Your task to perform on an android device: clear history in the chrome app Image 0: 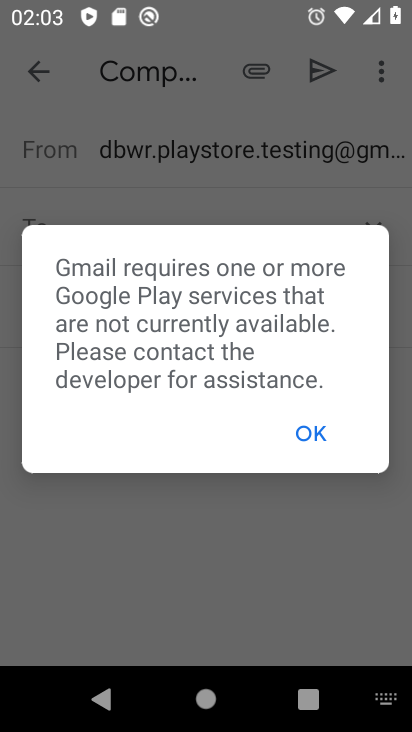
Step 0: press home button
Your task to perform on an android device: clear history in the chrome app Image 1: 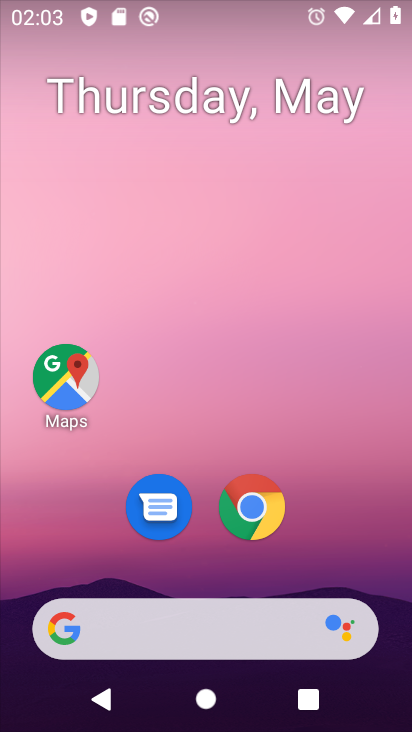
Step 1: click (251, 530)
Your task to perform on an android device: clear history in the chrome app Image 2: 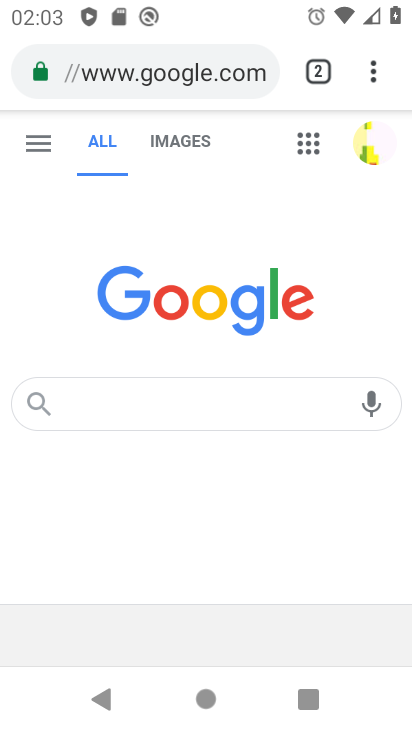
Step 2: click (377, 88)
Your task to perform on an android device: clear history in the chrome app Image 3: 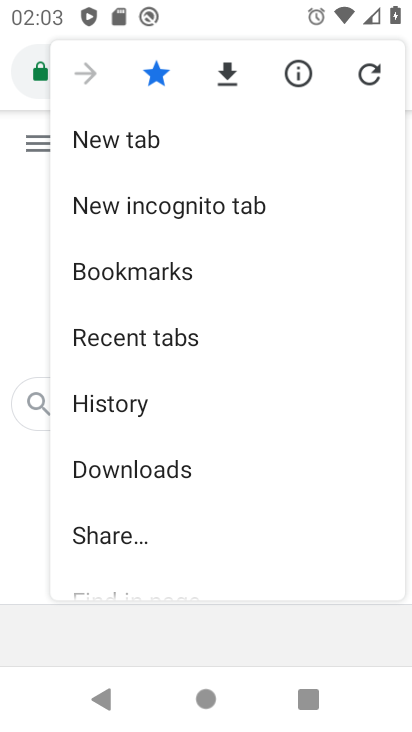
Step 3: drag from (201, 520) to (211, 419)
Your task to perform on an android device: clear history in the chrome app Image 4: 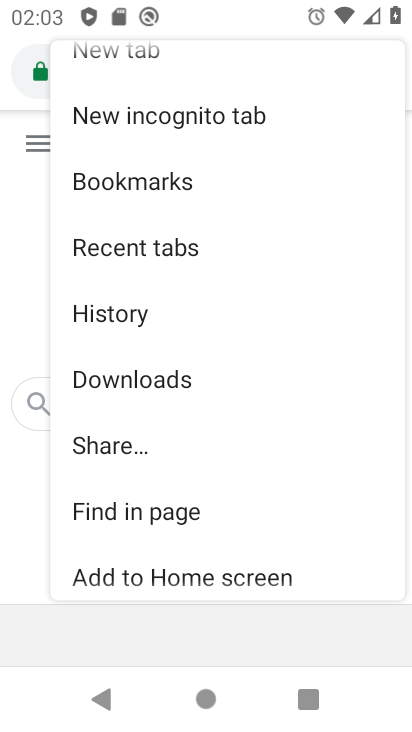
Step 4: drag from (211, 521) to (217, 405)
Your task to perform on an android device: clear history in the chrome app Image 5: 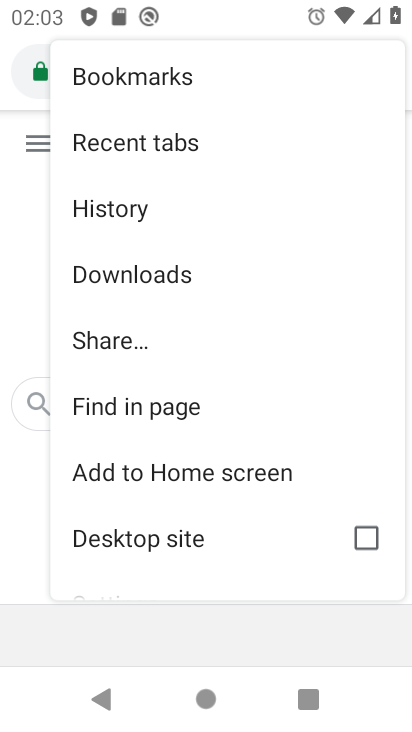
Step 5: drag from (204, 470) to (204, 393)
Your task to perform on an android device: clear history in the chrome app Image 6: 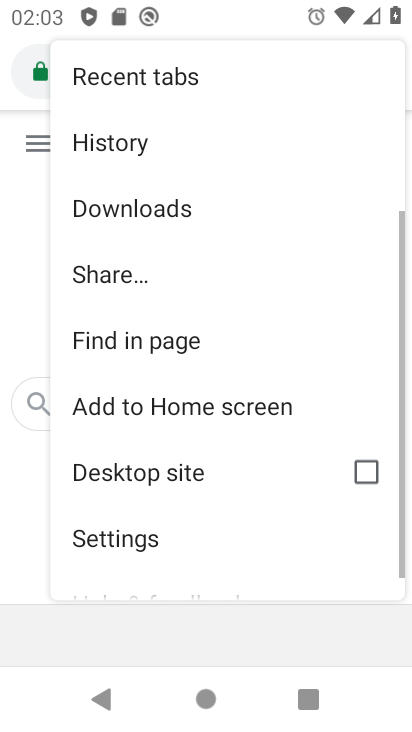
Step 6: click (204, 393)
Your task to perform on an android device: clear history in the chrome app Image 7: 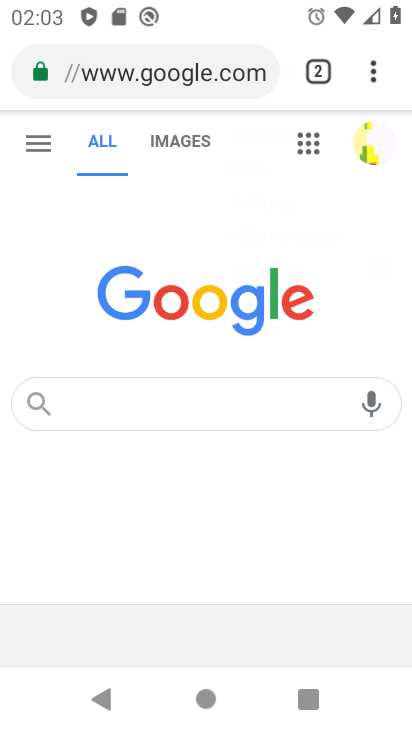
Step 7: click (126, 139)
Your task to perform on an android device: clear history in the chrome app Image 8: 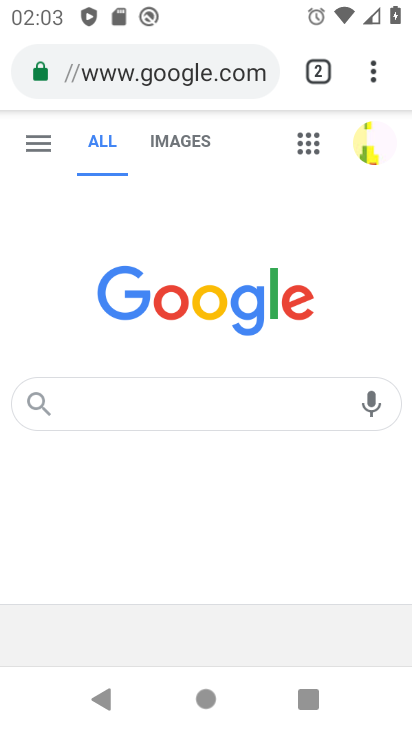
Step 8: task complete